Your task to perform on an android device: show emergency info Image 0: 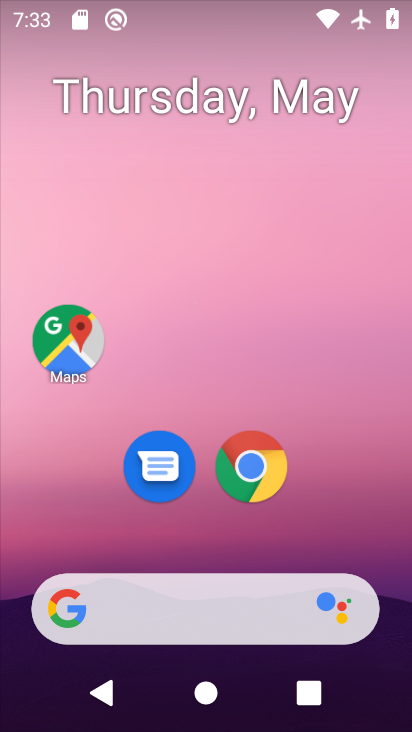
Step 0: drag from (384, 543) to (218, 37)
Your task to perform on an android device: show emergency info Image 1: 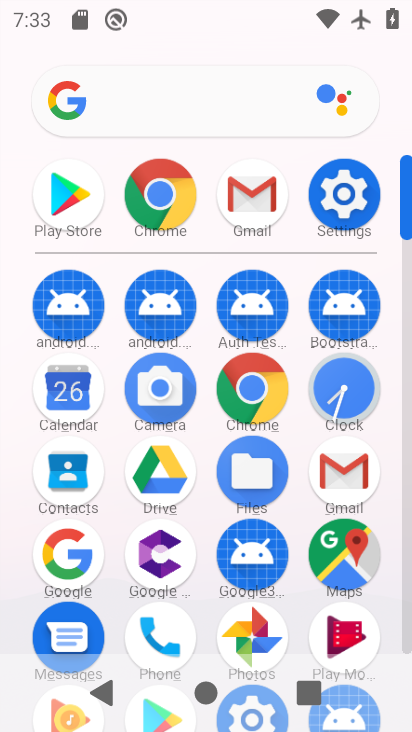
Step 1: click (325, 177)
Your task to perform on an android device: show emergency info Image 2: 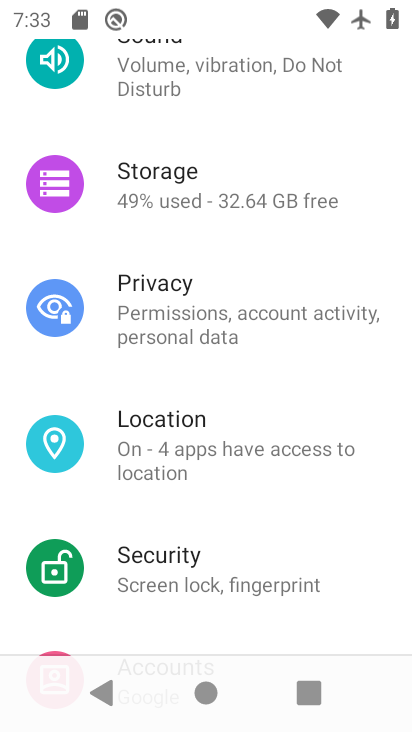
Step 2: drag from (202, 613) to (181, 139)
Your task to perform on an android device: show emergency info Image 3: 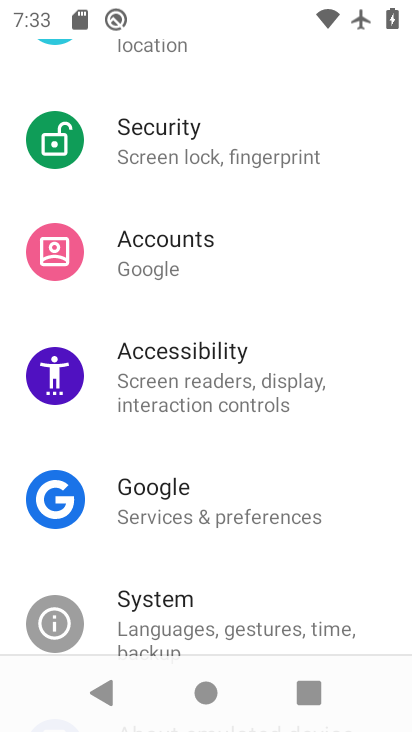
Step 3: drag from (184, 612) to (176, 267)
Your task to perform on an android device: show emergency info Image 4: 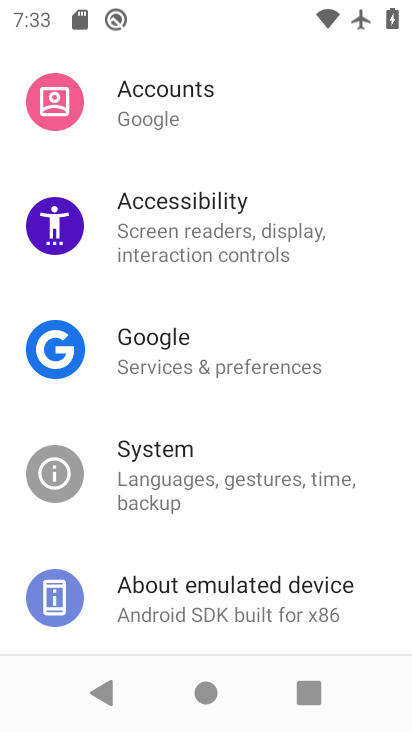
Step 4: click (219, 565)
Your task to perform on an android device: show emergency info Image 5: 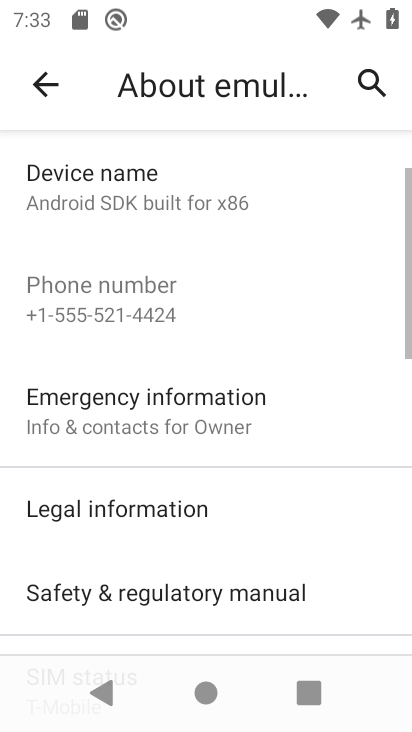
Step 5: click (238, 404)
Your task to perform on an android device: show emergency info Image 6: 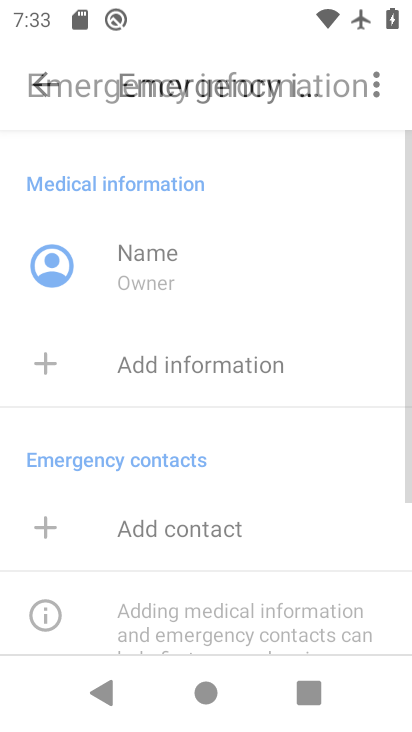
Step 6: task complete